Your task to perform on an android device: What's the news in Barbados? Image 0: 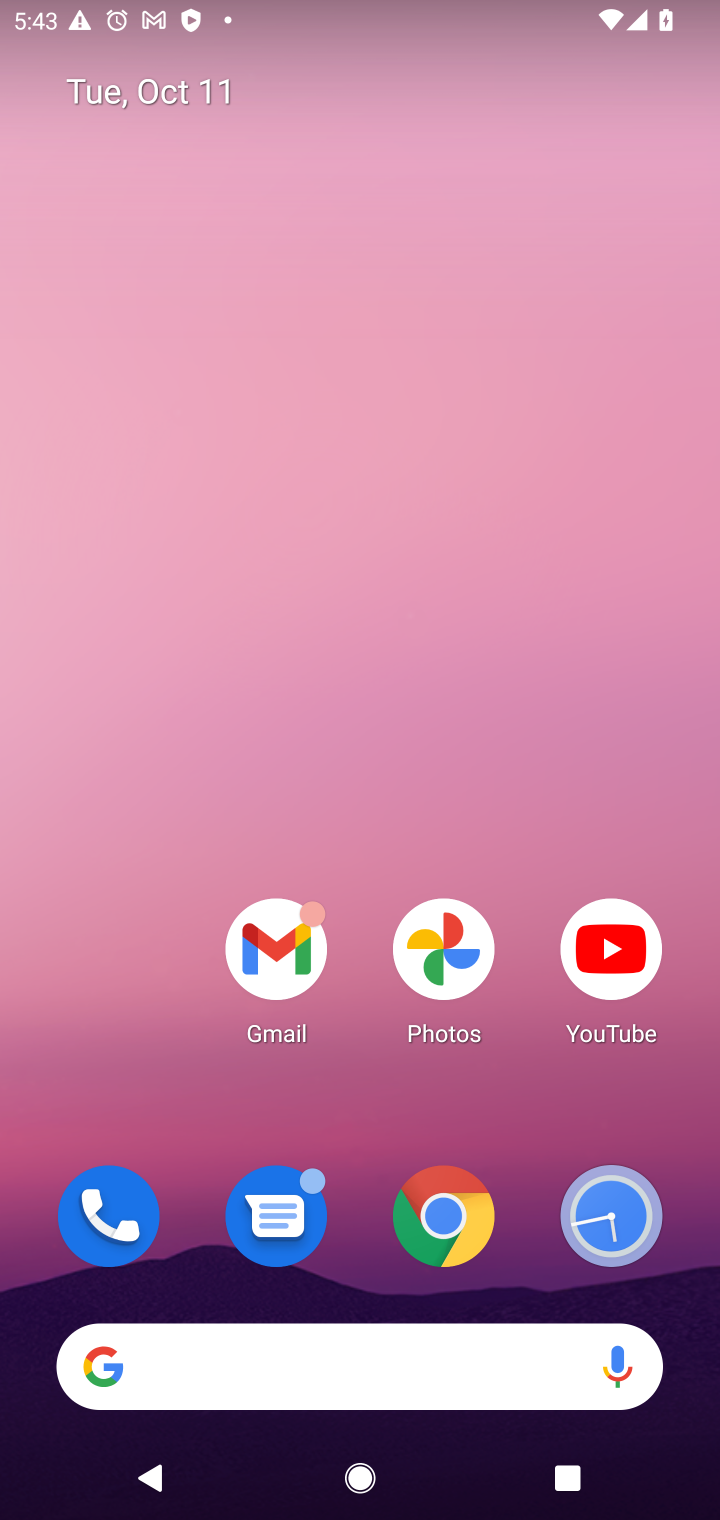
Step 0: click (445, 1258)
Your task to perform on an android device: What's the news in Barbados? Image 1: 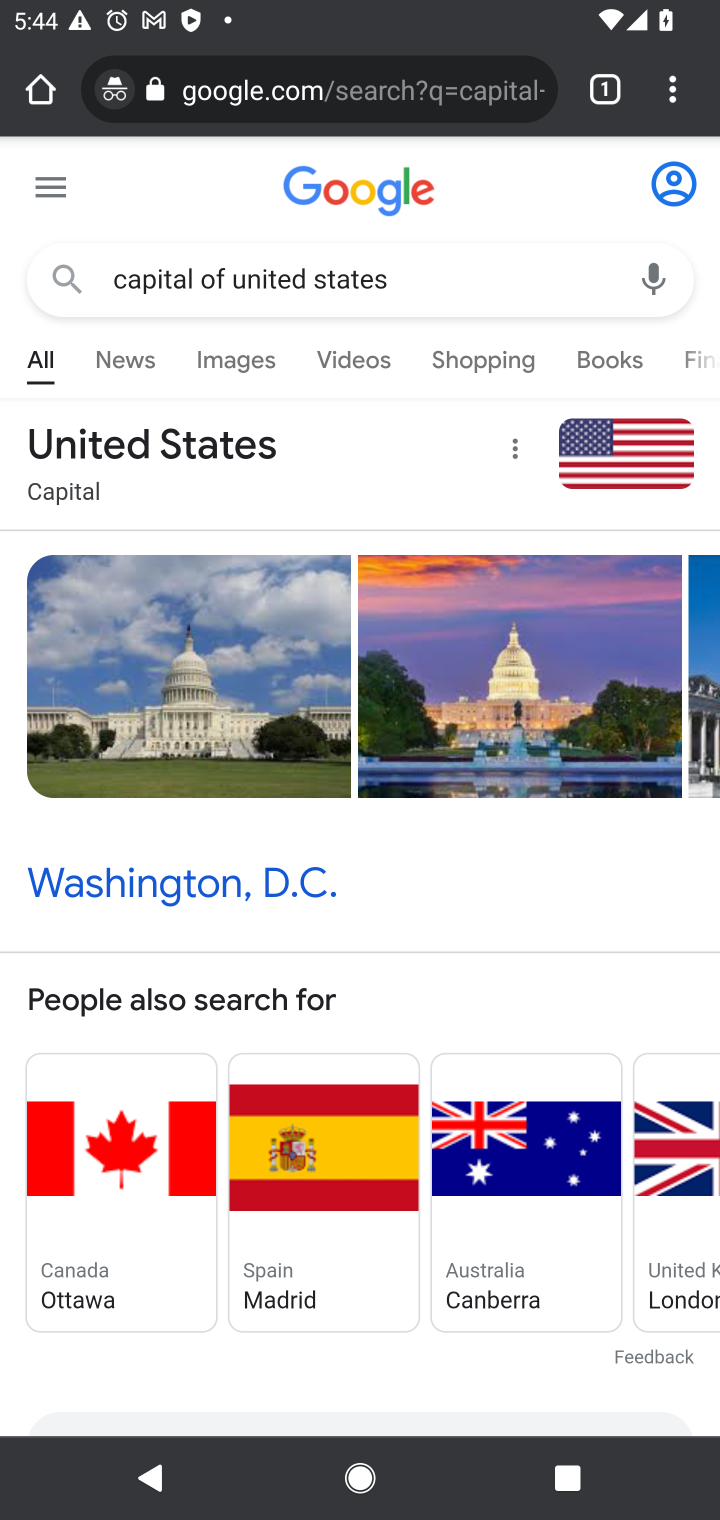
Step 1: click (447, 285)
Your task to perform on an android device: What's the news in Barbados? Image 2: 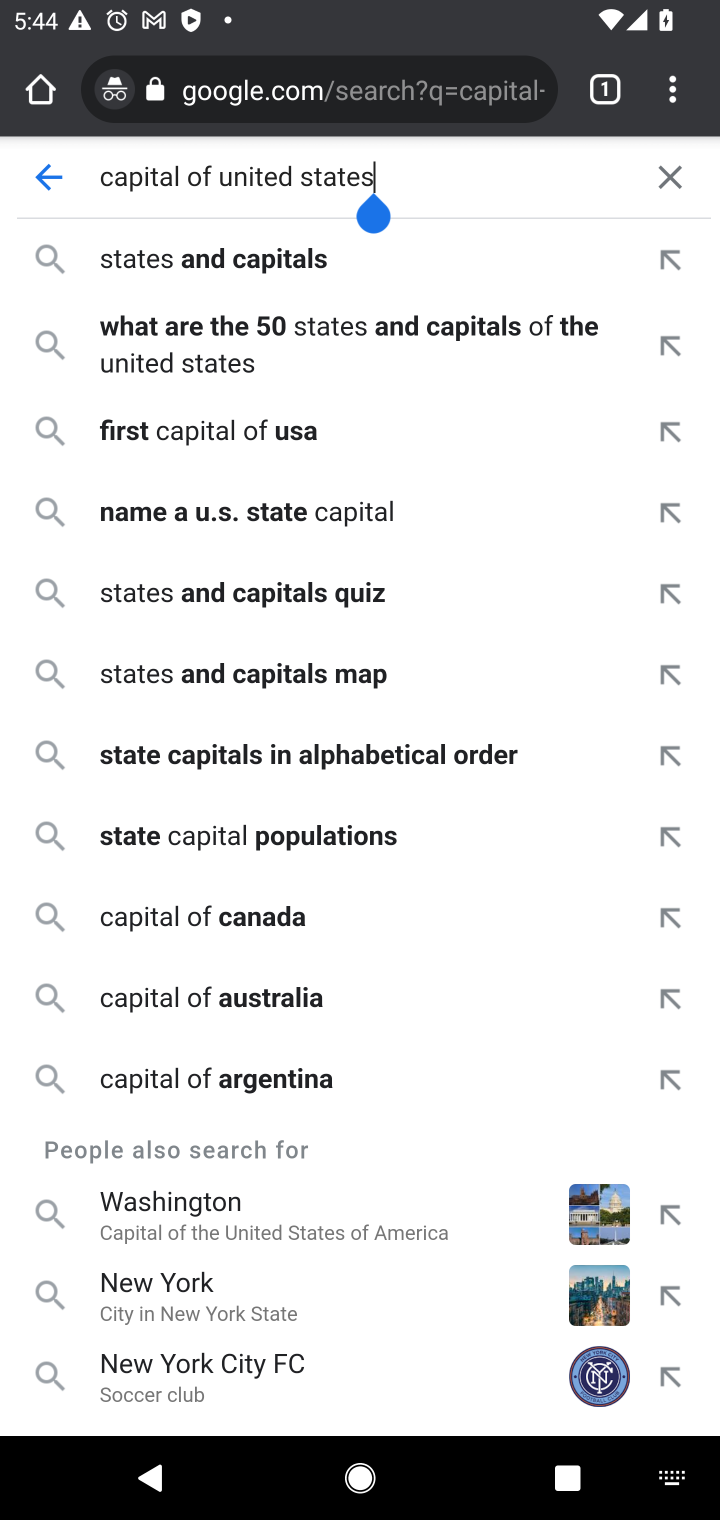
Step 2: click (673, 186)
Your task to perform on an android device: What's the news in Barbados? Image 3: 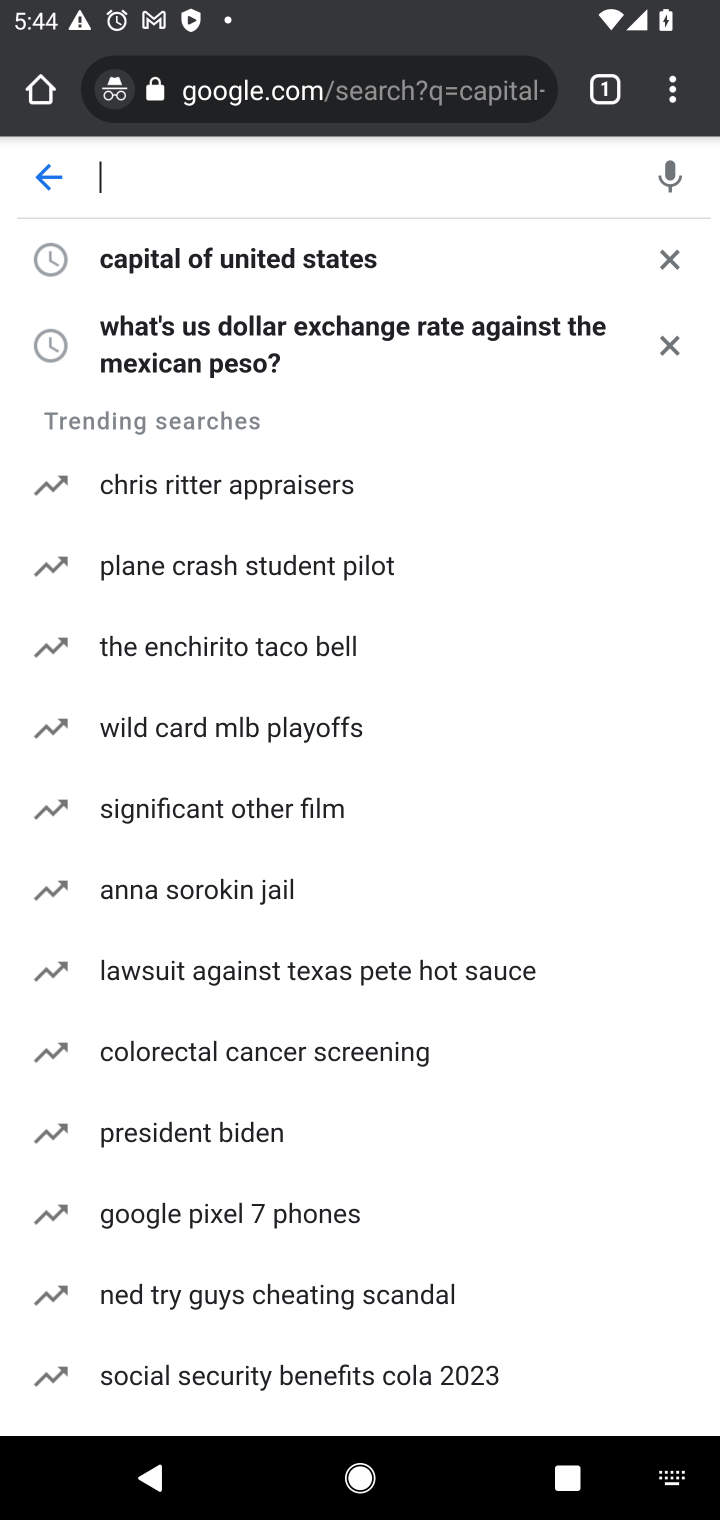
Step 3: type "news in barbados"
Your task to perform on an android device: What's the news in Barbados? Image 4: 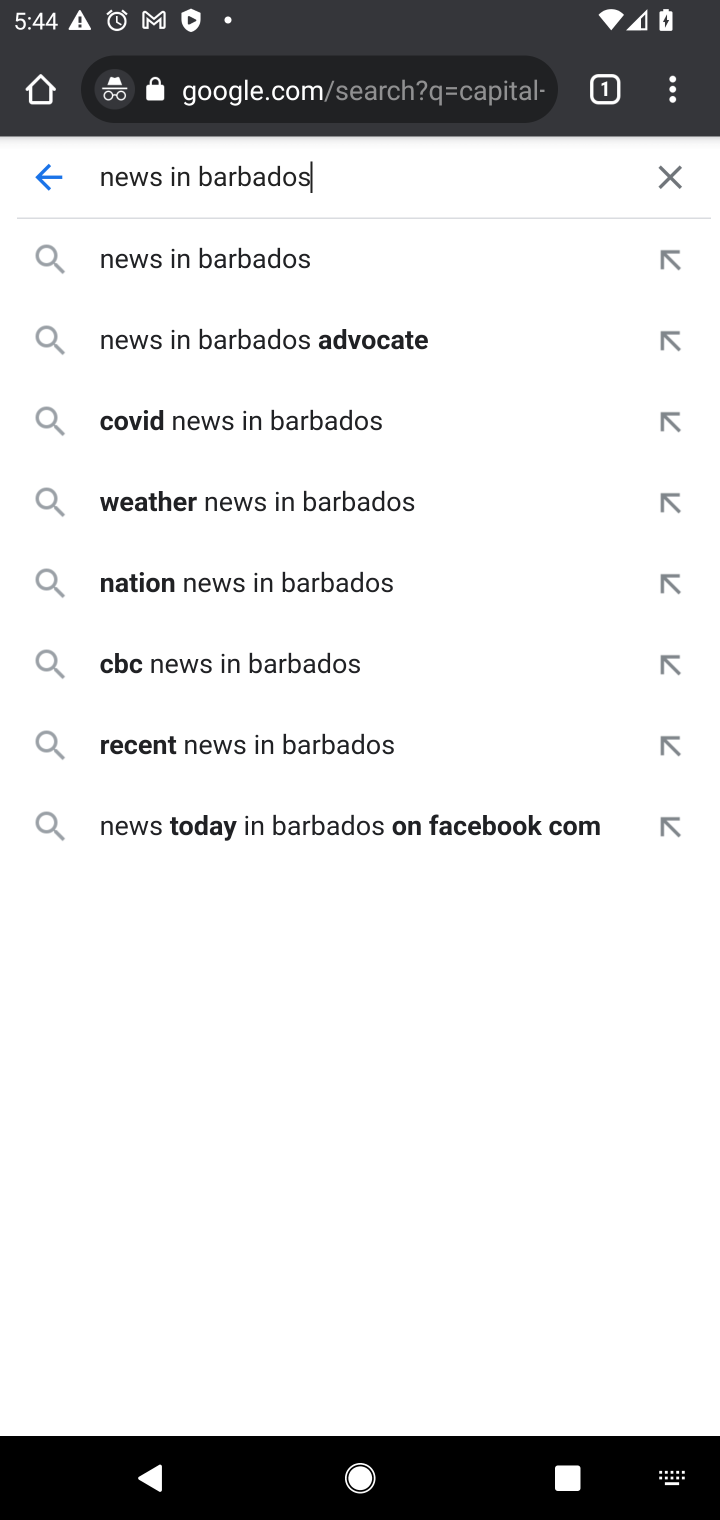
Step 4: click (268, 276)
Your task to perform on an android device: What's the news in Barbados? Image 5: 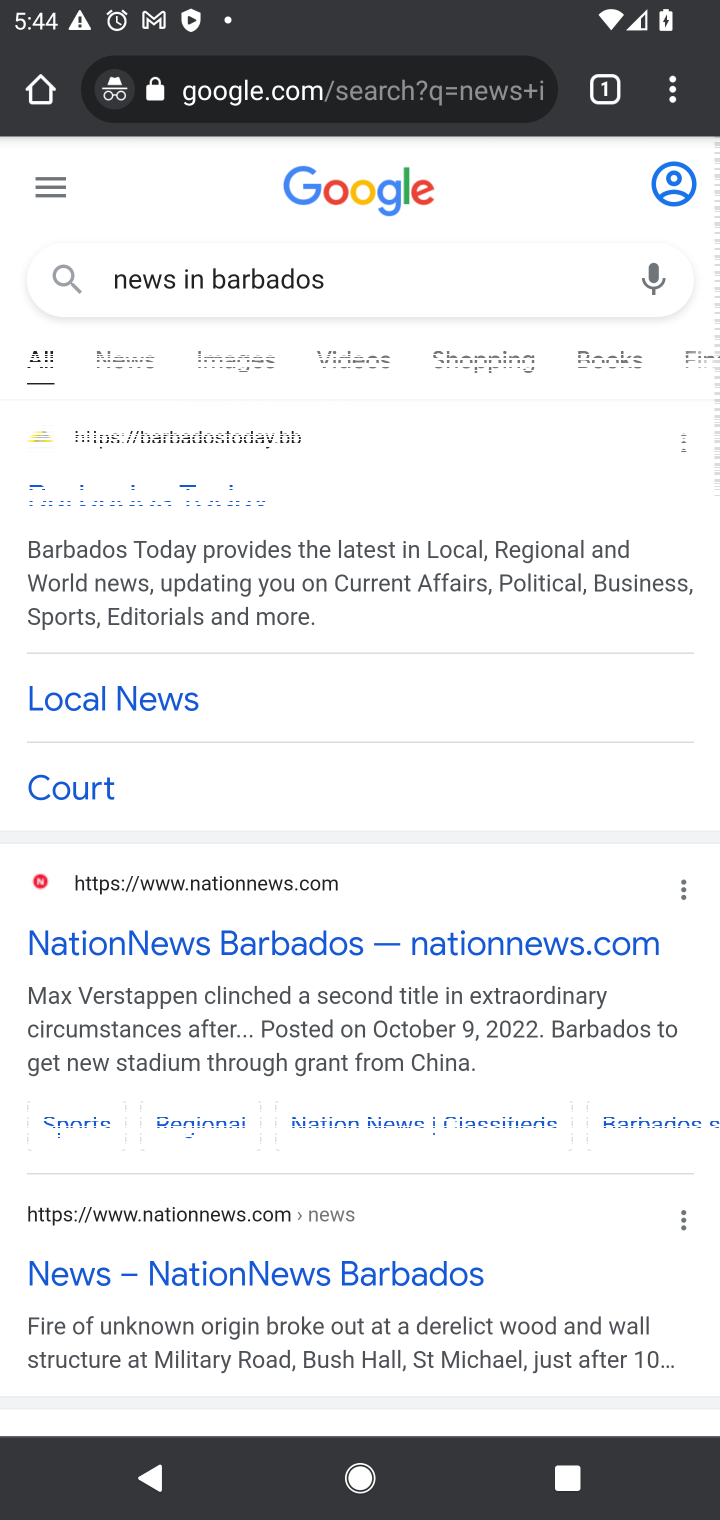
Step 5: click (130, 361)
Your task to perform on an android device: What's the news in Barbados? Image 6: 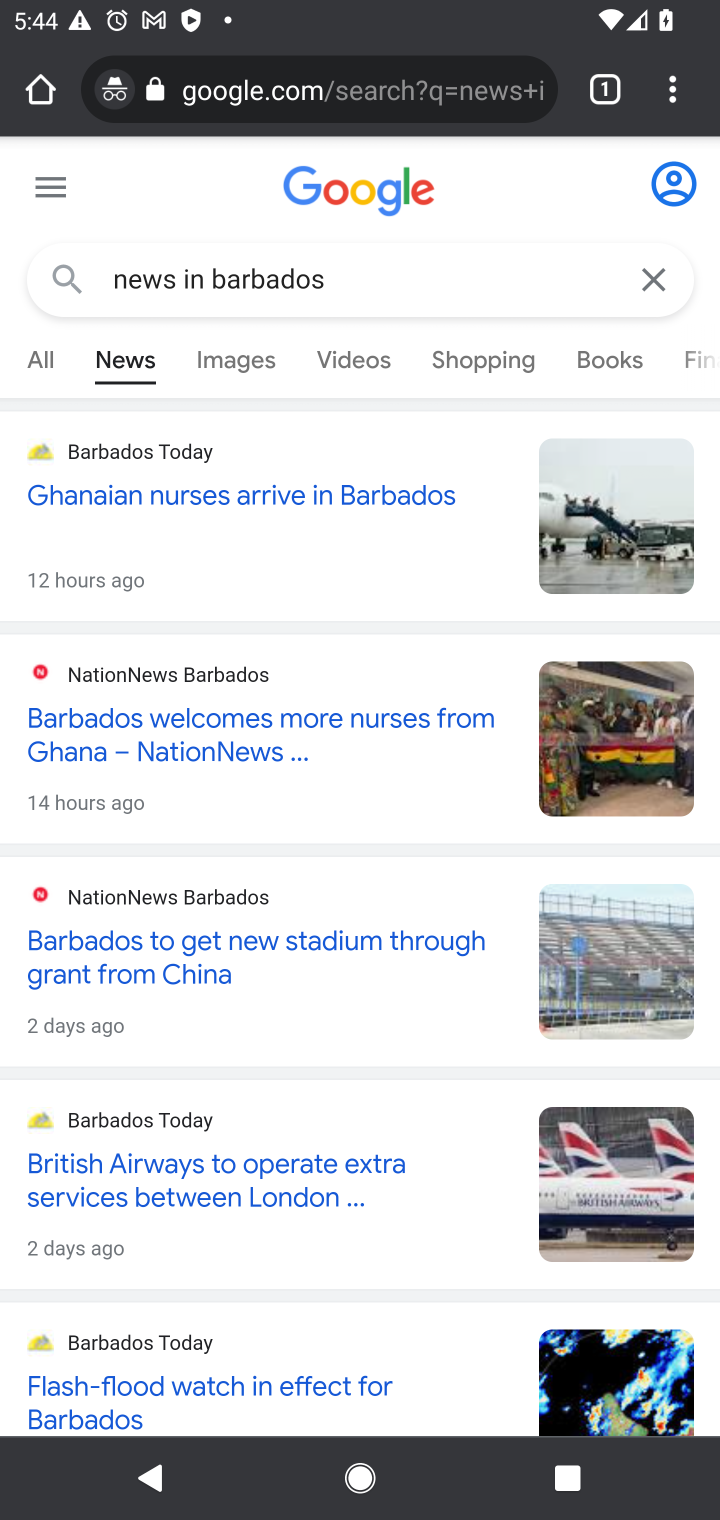
Step 6: task complete